Your task to perform on an android device: empty trash in google photos Image 0: 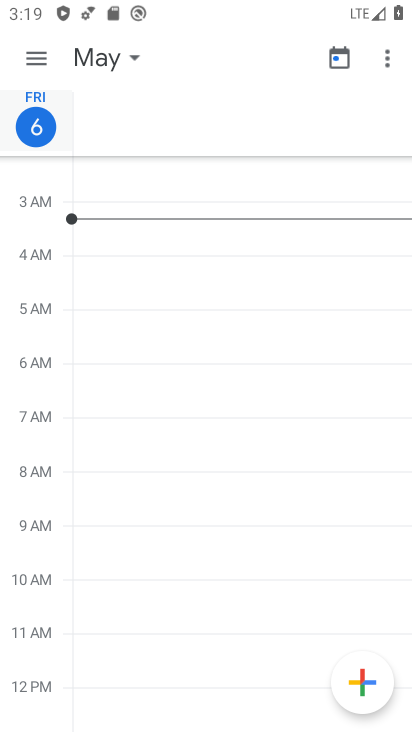
Step 0: press home button
Your task to perform on an android device: empty trash in google photos Image 1: 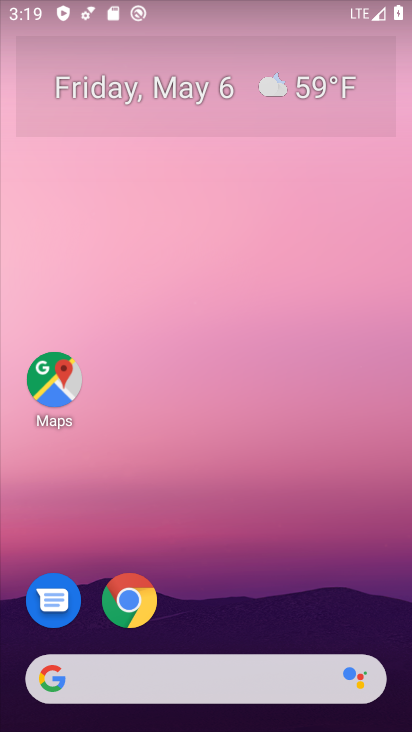
Step 1: drag from (228, 621) to (279, 41)
Your task to perform on an android device: empty trash in google photos Image 2: 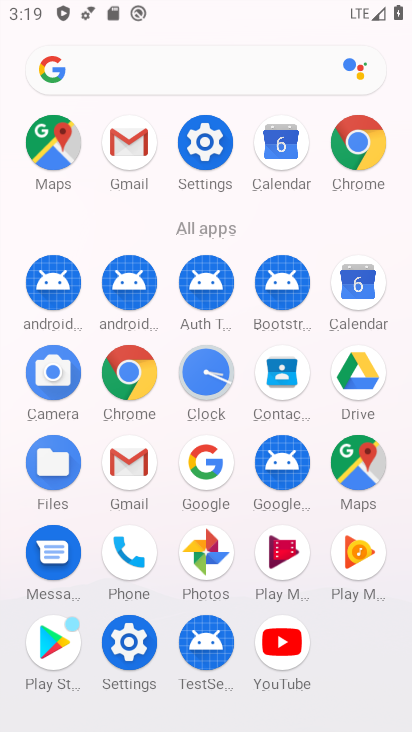
Step 2: click (198, 551)
Your task to perform on an android device: empty trash in google photos Image 3: 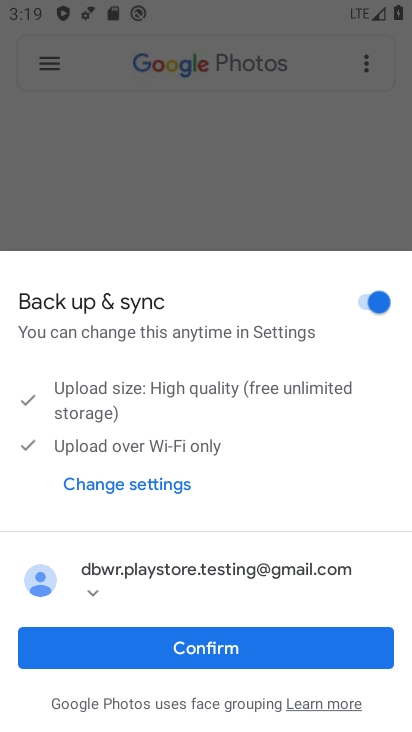
Step 3: click (217, 655)
Your task to perform on an android device: empty trash in google photos Image 4: 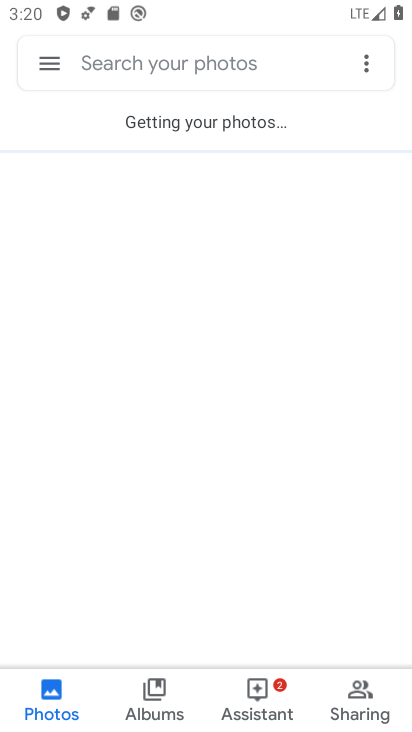
Step 4: click (52, 56)
Your task to perform on an android device: empty trash in google photos Image 5: 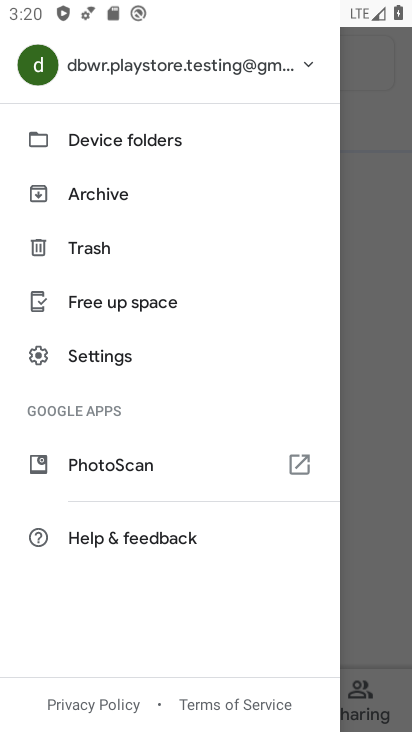
Step 5: click (106, 246)
Your task to perform on an android device: empty trash in google photos Image 6: 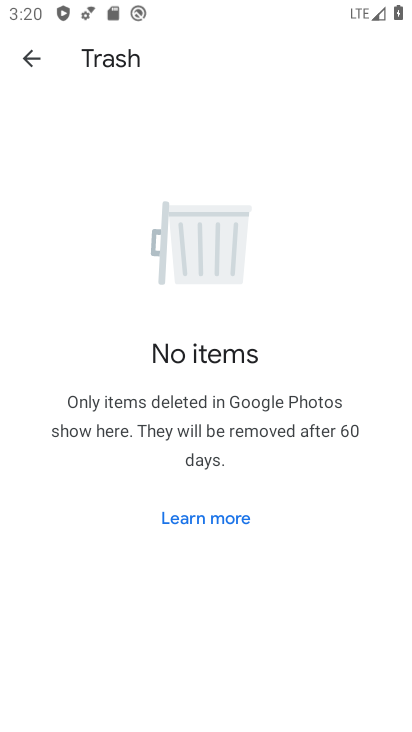
Step 6: task complete